Your task to perform on an android device: Open the phone app and click the voicemail tab. Image 0: 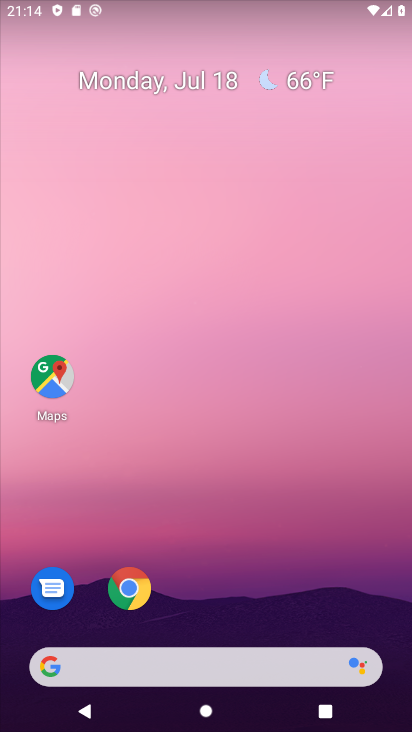
Step 0: drag from (149, 676) to (244, 293)
Your task to perform on an android device: Open the phone app and click the voicemail tab. Image 1: 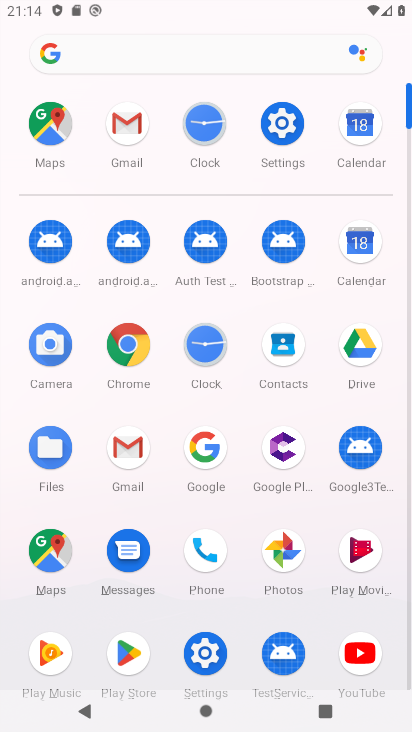
Step 1: click (209, 546)
Your task to perform on an android device: Open the phone app and click the voicemail tab. Image 2: 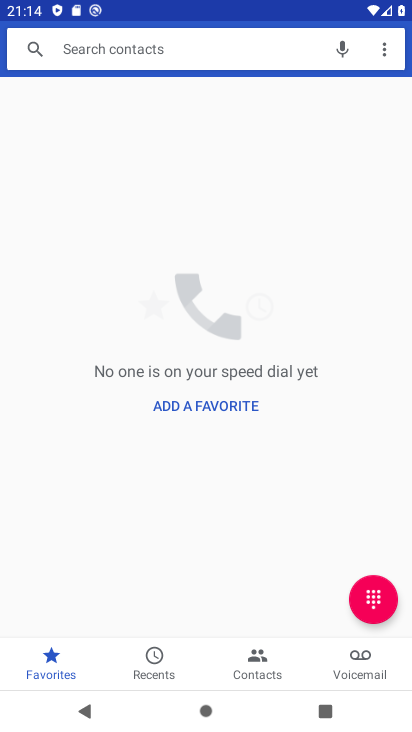
Step 2: click (357, 648)
Your task to perform on an android device: Open the phone app and click the voicemail tab. Image 3: 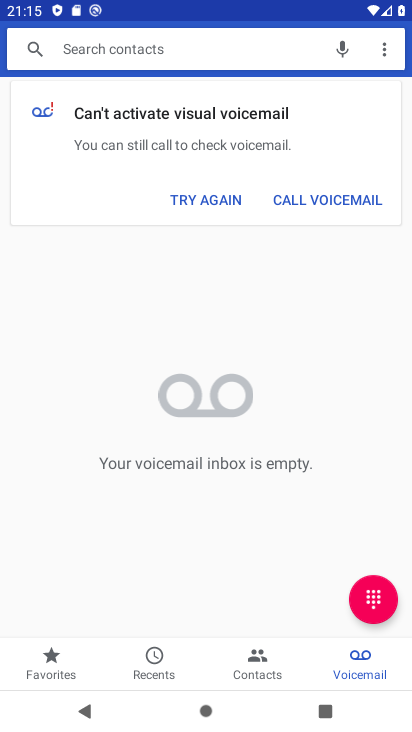
Step 3: task complete